Your task to perform on an android device: Open internet settings Image 0: 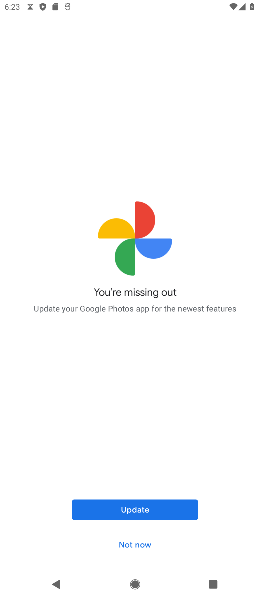
Step 0: press home button
Your task to perform on an android device: Open internet settings Image 1: 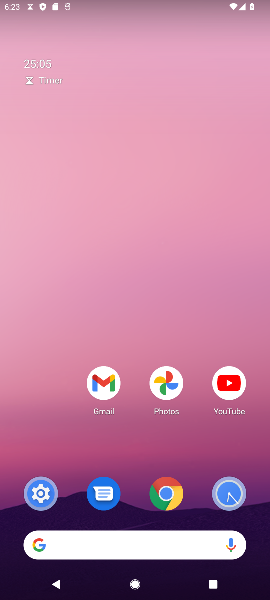
Step 1: drag from (134, 483) to (153, 109)
Your task to perform on an android device: Open internet settings Image 2: 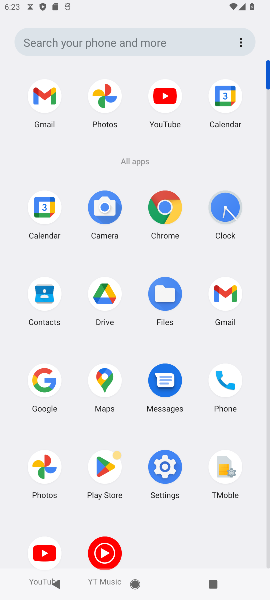
Step 2: click (158, 469)
Your task to perform on an android device: Open internet settings Image 3: 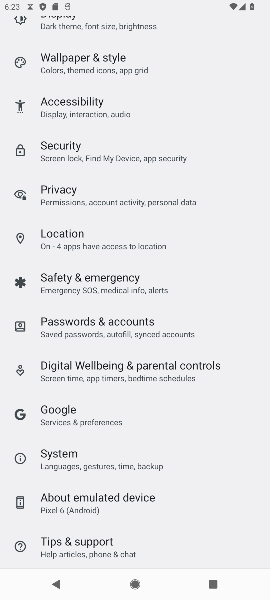
Step 3: drag from (97, 89) to (87, 411)
Your task to perform on an android device: Open internet settings Image 4: 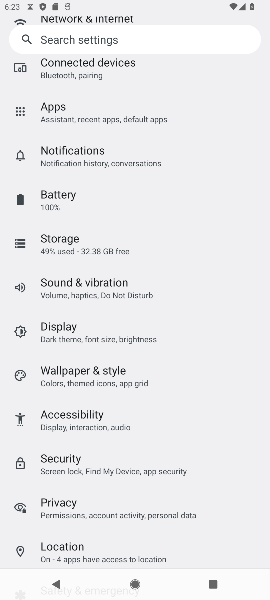
Step 4: drag from (153, 80) to (145, 470)
Your task to perform on an android device: Open internet settings Image 5: 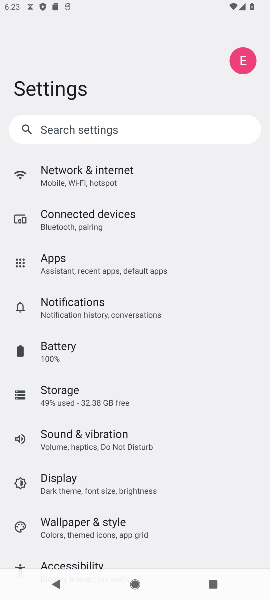
Step 5: click (78, 171)
Your task to perform on an android device: Open internet settings Image 6: 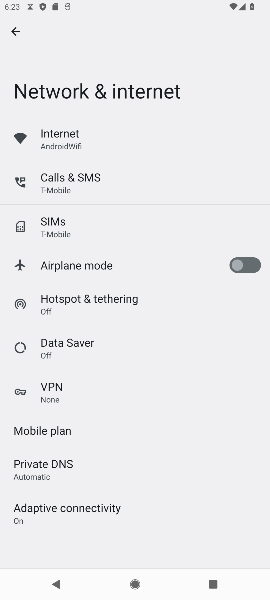
Step 6: click (54, 137)
Your task to perform on an android device: Open internet settings Image 7: 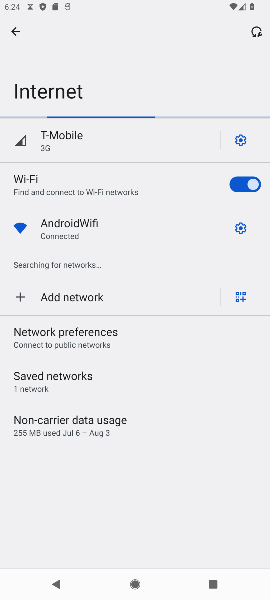
Step 7: task complete